Your task to perform on an android device: check storage Image 0: 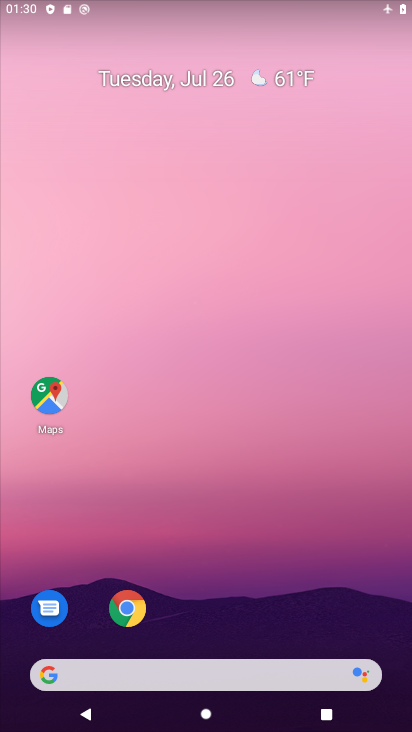
Step 0: drag from (1, 606) to (196, 28)
Your task to perform on an android device: check storage Image 1: 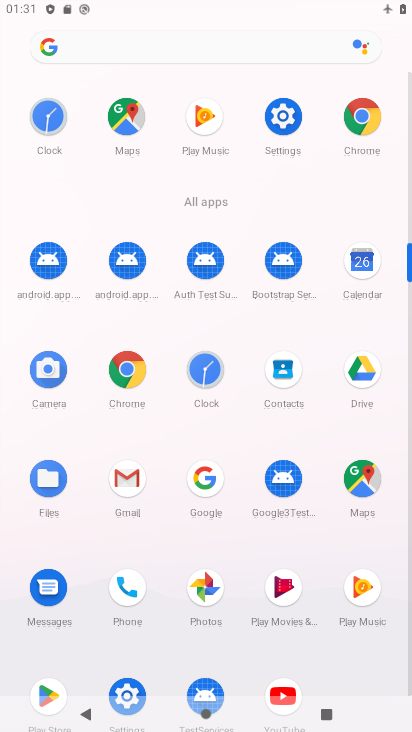
Step 1: click (285, 133)
Your task to perform on an android device: check storage Image 2: 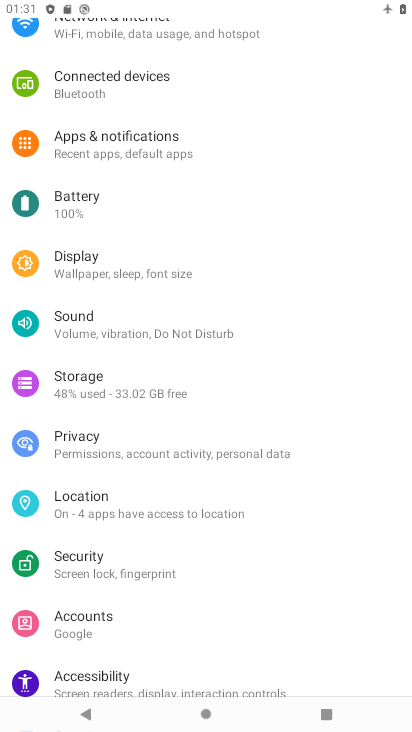
Step 2: click (116, 381)
Your task to perform on an android device: check storage Image 3: 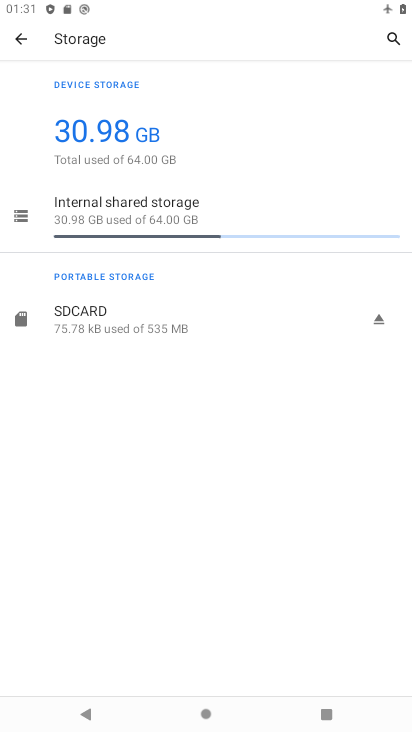
Step 3: task complete